Your task to perform on an android device: turn off smart reply in the gmail app Image 0: 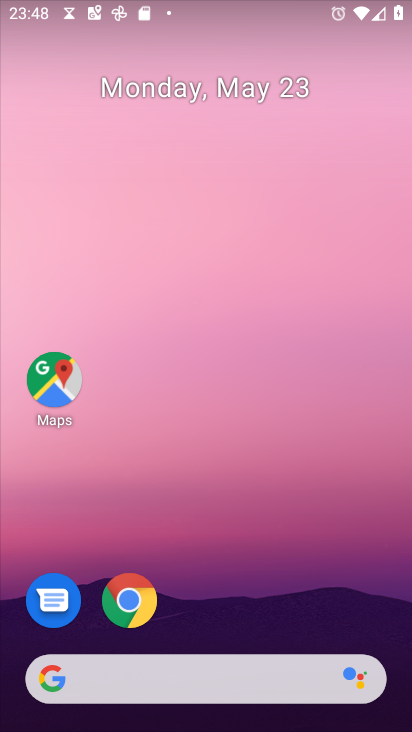
Step 0: drag from (228, 725) to (204, 76)
Your task to perform on an android device: turn off smart reply in the gmail app Image 1: 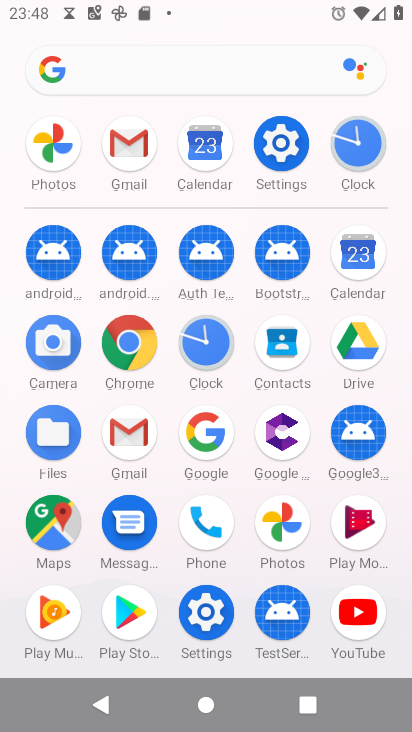
Step 1: click (130, 427)
Your task to perform on an android device: turn off smart reply in the gmail app Image 2: 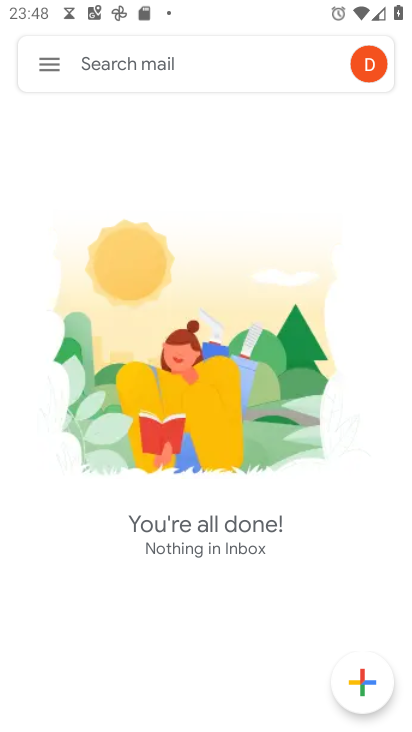
Step 2: click (39, 60)
Your task to perform on an android device: turn off smart reply in the gmail app Image 3: 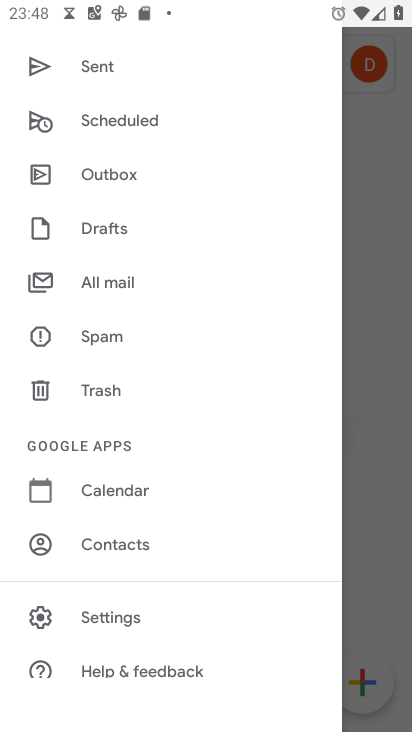
Step 3: click (110, 617)
Your task to perform on an android device: turn off smart reply in the gmail app Image 4: 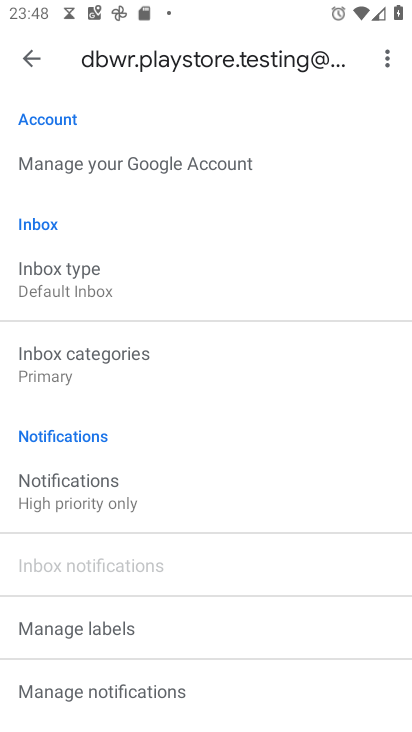
Step 4: task complete